Your task to perform on an android device: toggle priority inbox in the gmail app Image 0: 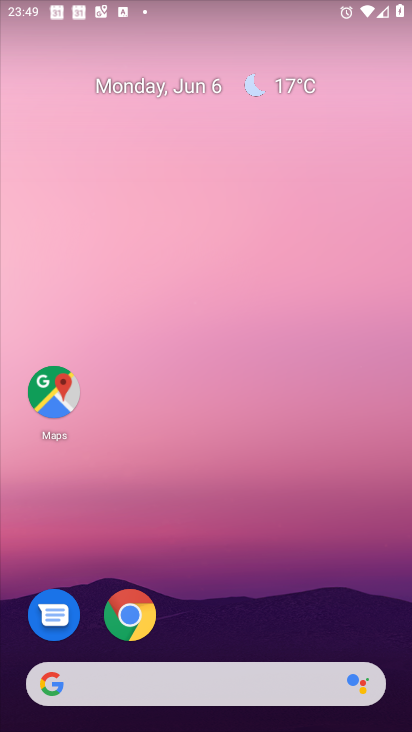
Step 0: drag from (388, 682) to (271, 22)
Your task to perform on an android device: toggle priority inbox in the gmail app Image 1: 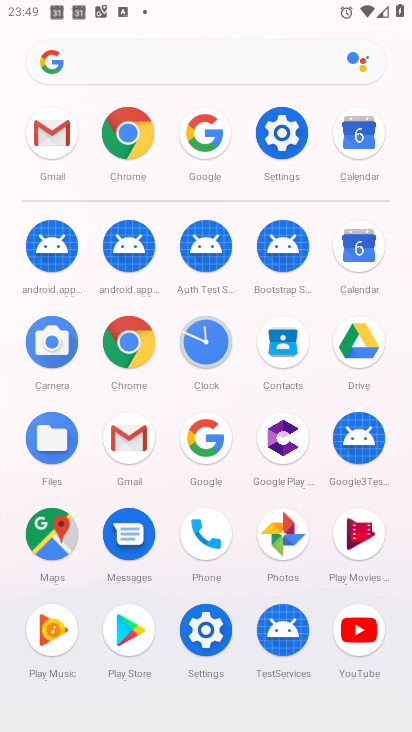
Step 1: click (137, 424)
Your task to perform on an android device: toggle priority inbox in the gmail app Image 2: 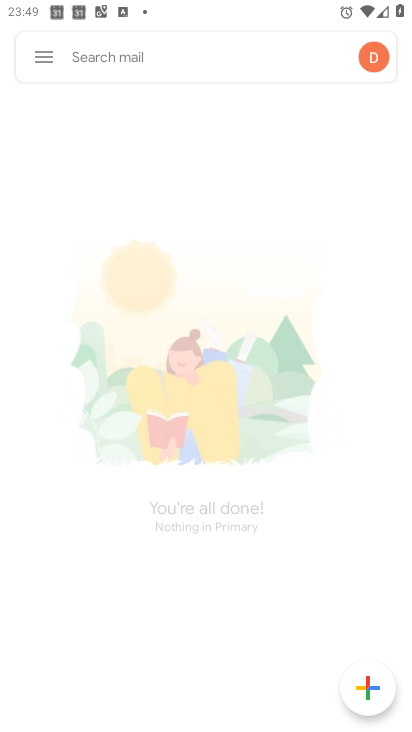
Step 2: click (51, 56)
Your task to perform on an android device: toggle priority inbox in the gmail app Image 3: 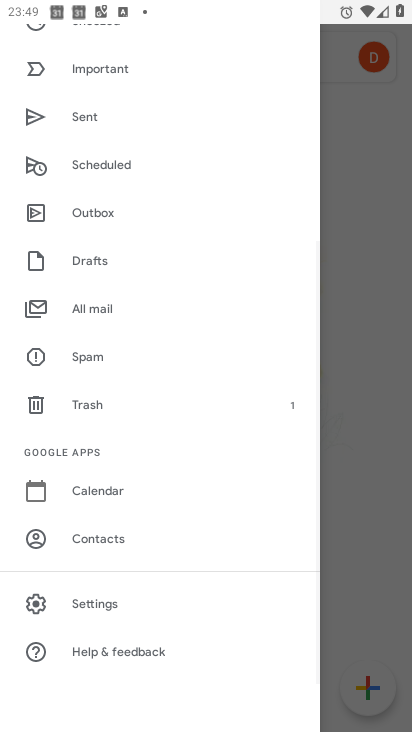
Step 3: click (102, 599)
Your task to perform on an android device: toggle priority inbox in the gmail app Image 4: 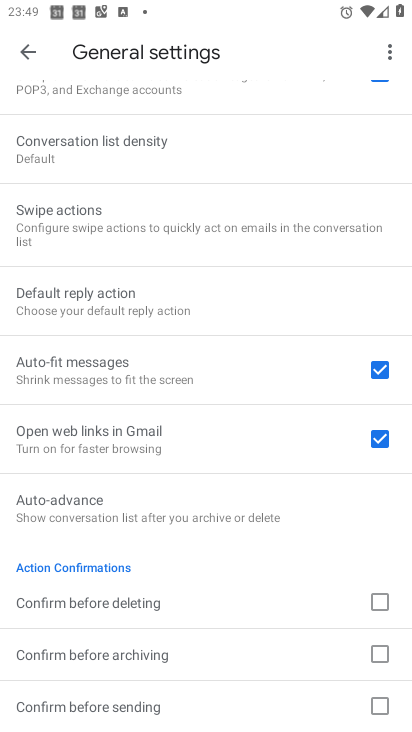
Step 4: click (24, 47)
Your task to perform on an android device: toggle priority inbox in the gmail app Image 5: 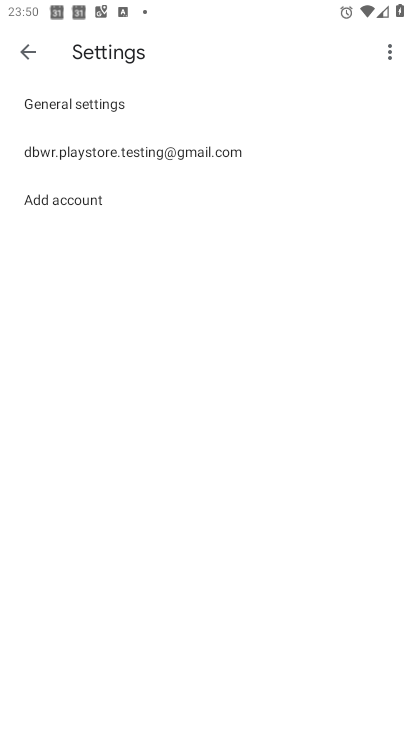
Step 5: click (66, 142)
Your task to perform on an android device: toggle priority inbox in the gmail app Image 6: 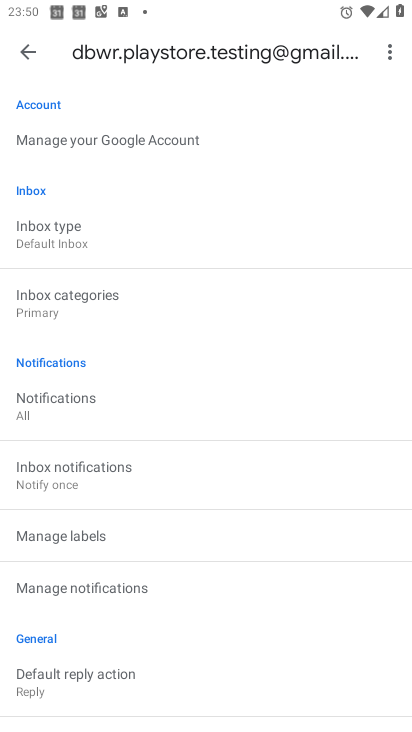
Step 6: click (46, 241)
Your task to perform on an android device: toggle priority inbox in the gmail app Image 7: 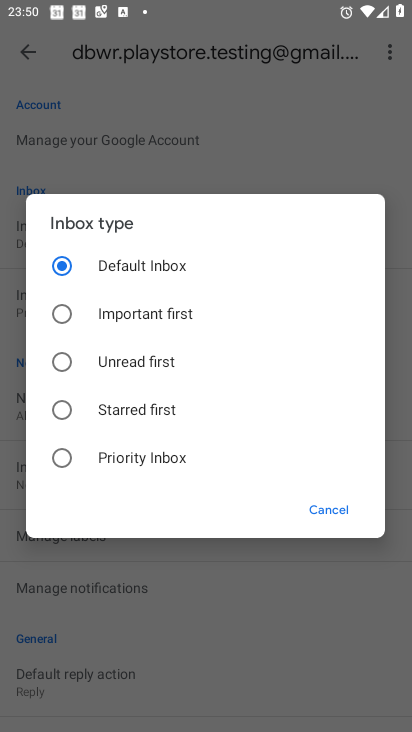
Step 7: click (89, 460)
Your task to perform on an android device: toggle priority inbox in the gmail app Image 8: 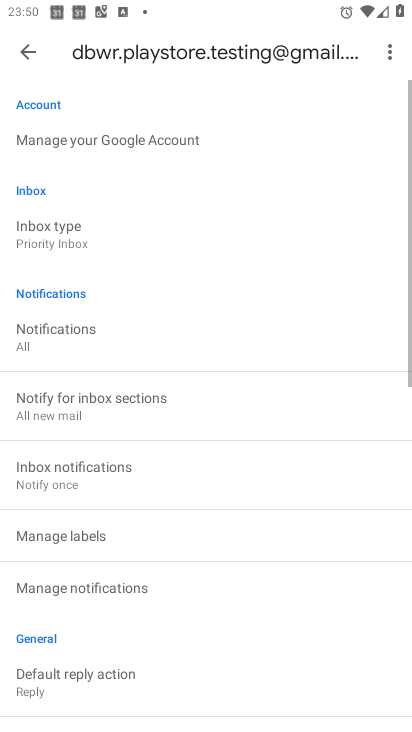
Step 8: task complete